Your task to perform on an android device: Do I have any events today? Image 0: 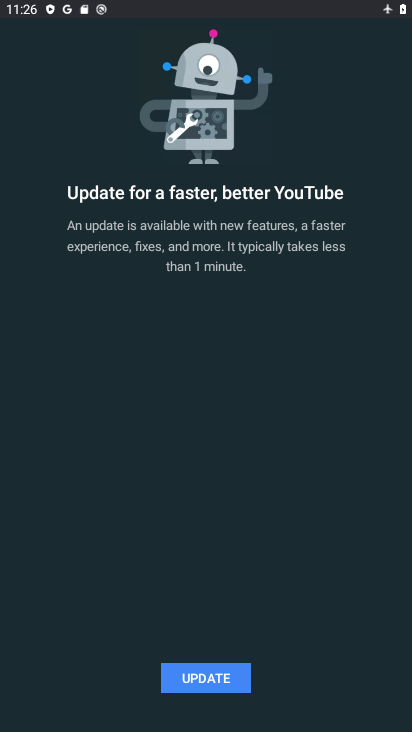
Step 0: press home button
Your task to perform on an android device: Do I have any events today? Image 1: 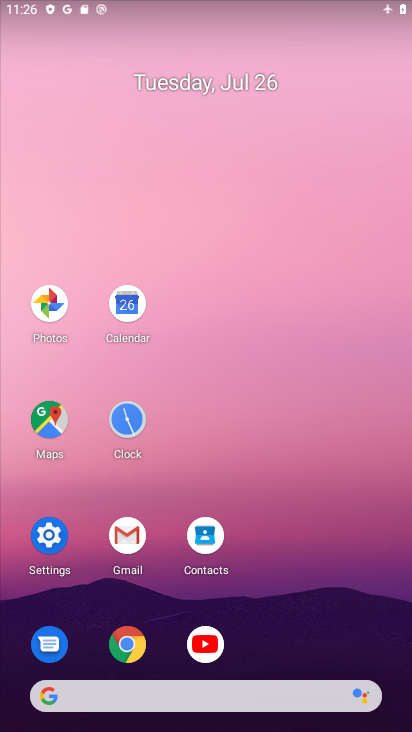
Step 1: click (129, 307)
Your task to perform on an android device: Do I have any events today? Image 2: 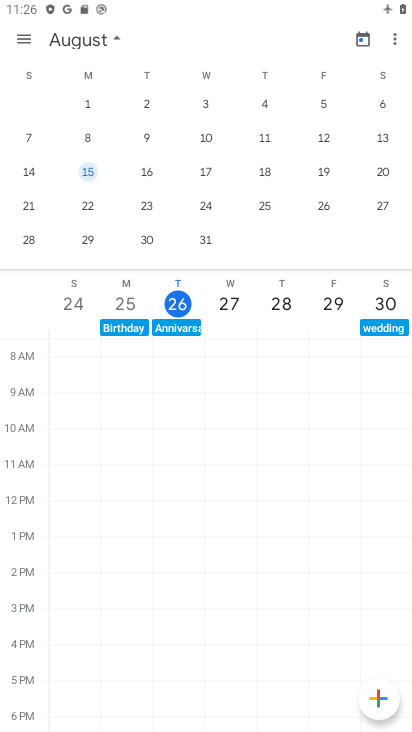
Step 2: drag from (23, 141) to (385, 190)
Your task to perform on an android device: Do I have any events today? Image 3: 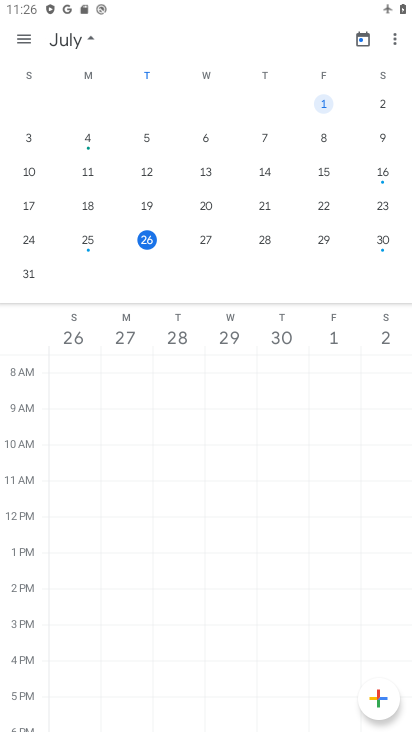
Step 3: click (150, 237)
Your task to perform on an android device: Do I have any events today? Image 4: 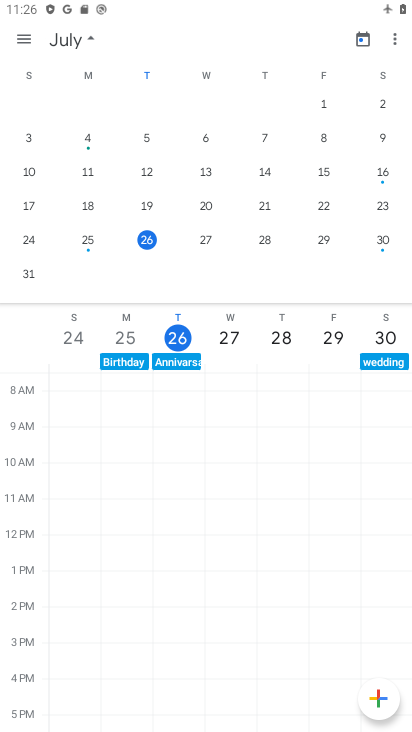
Step 4: task complete